Your task to perform on an android device: Open Amazon Image 0: 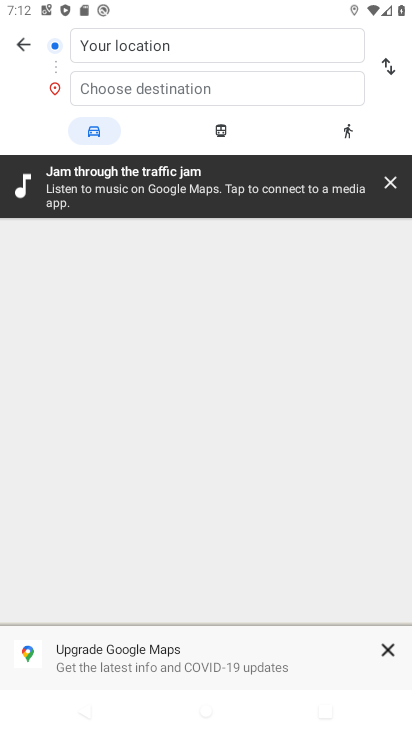
Step 0: press home button
Your task to perform on an android device: Open Amazon Image 1: 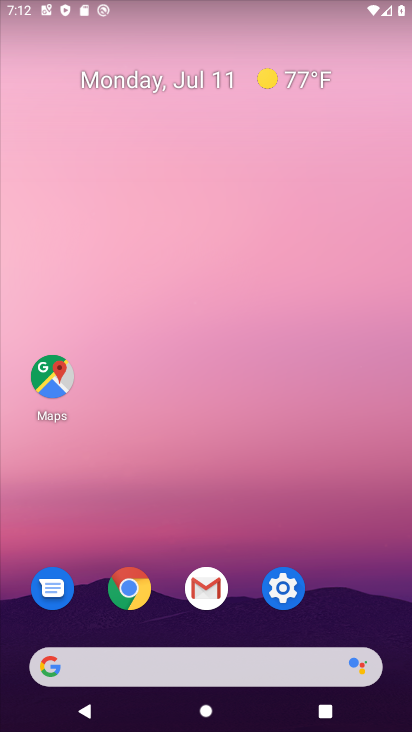
Step 1: click (136, 584)
Your task to perform on an android device: Open Amazon Image 2: 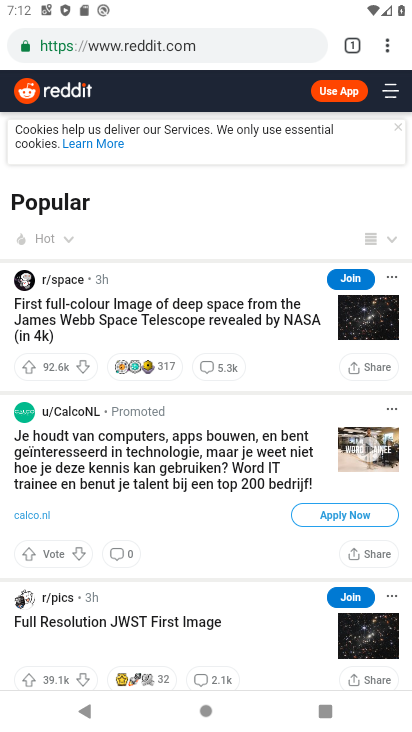
Step 2: click (353, 43)
Your task to perform on an android device: Open Amazon Image 3: 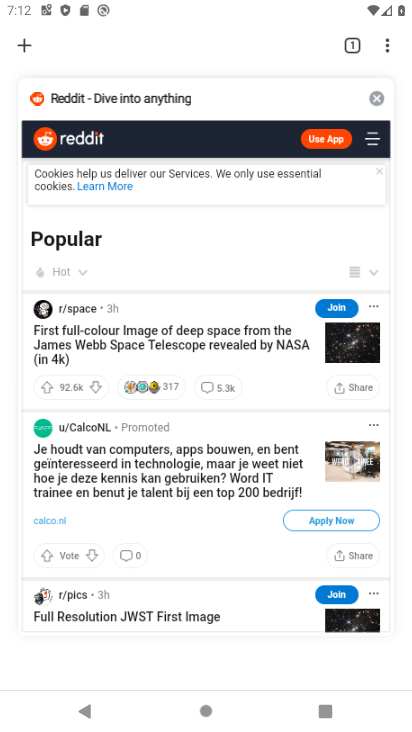
Step 3: click (29, 47)
Your task to perform on an android device: Open Amazon Image 4: 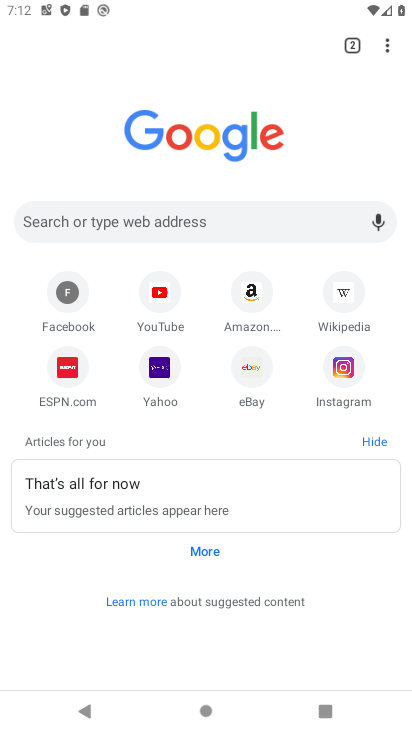
Step 4: click (256, 294)
Your task to perform on an android device: Open Amazon Image 5: 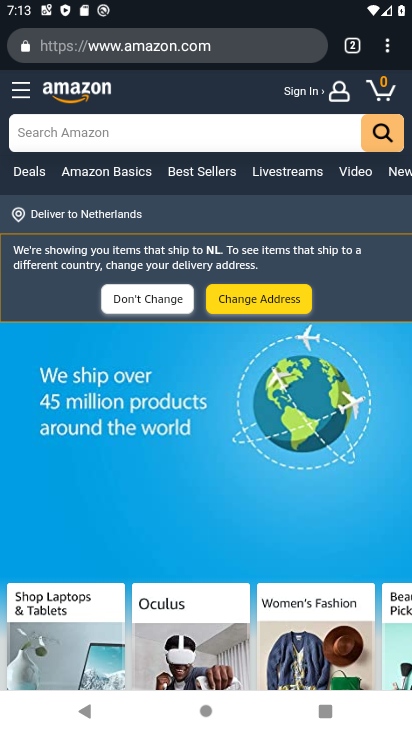
Step 5: task complete